Your task to perform on an android device: open app "Google Play services" Image 0: 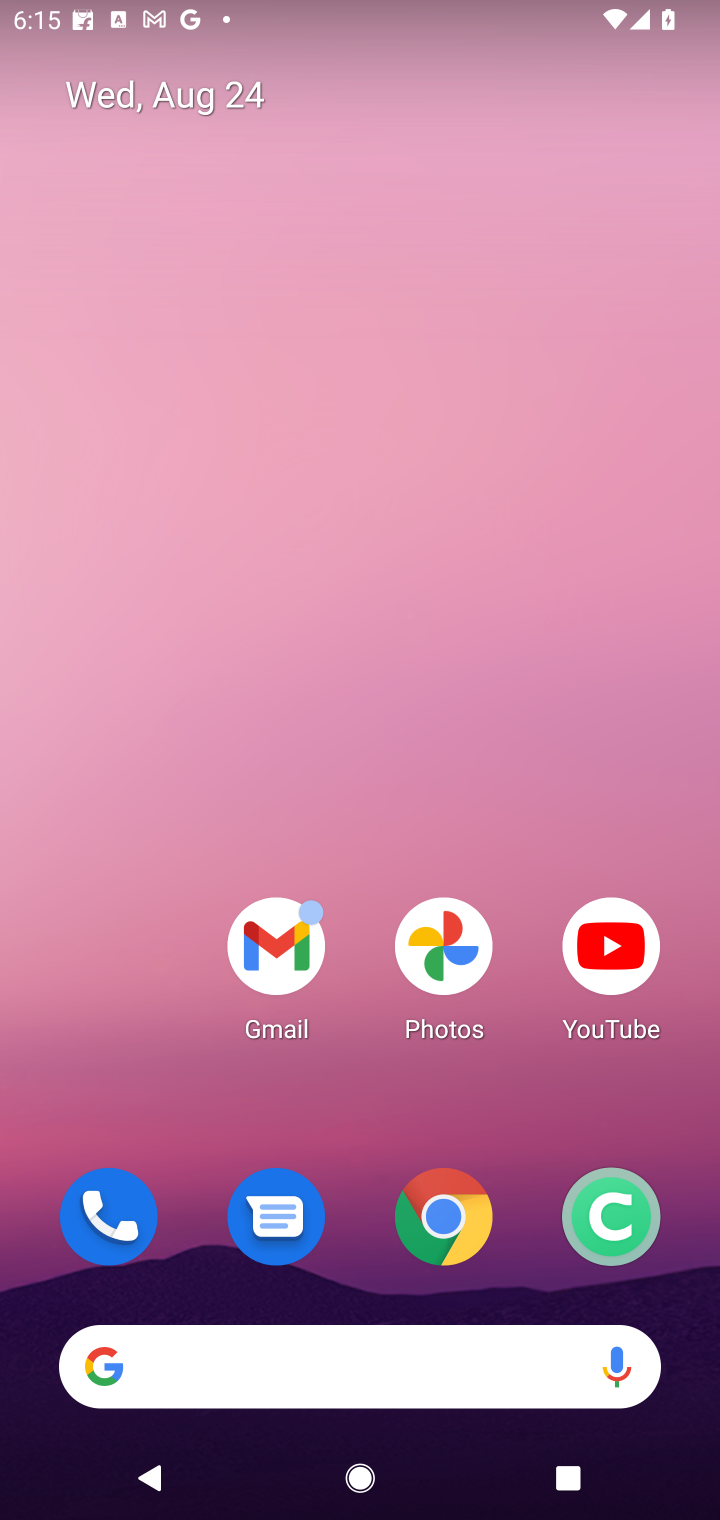
Step 0: drag from (380, 885) to (409, 148)
Your task to perform on an android device: open app "Google Play services" Image 1: 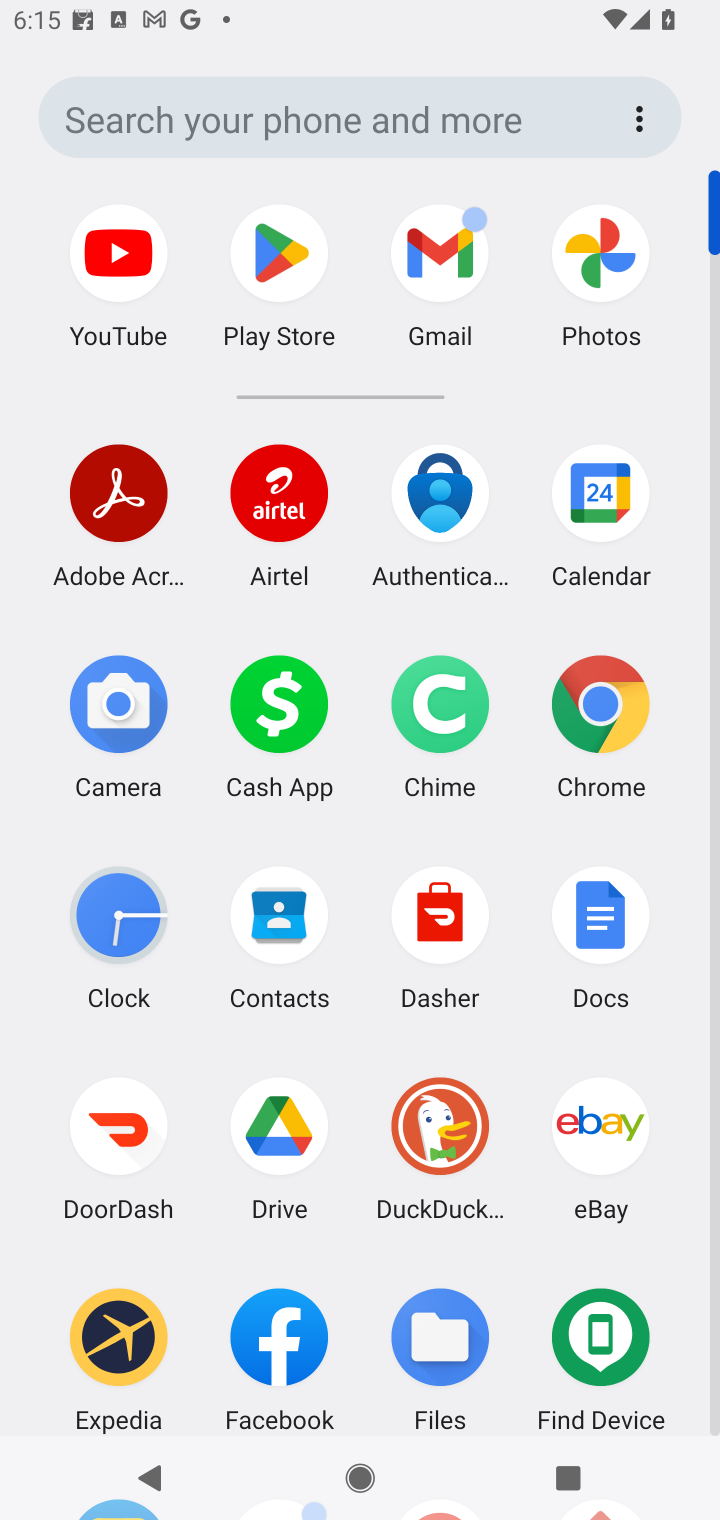
Step 1: click (285, 266)
Your task to perform on an android device: open app "Google Play services" Image 2: 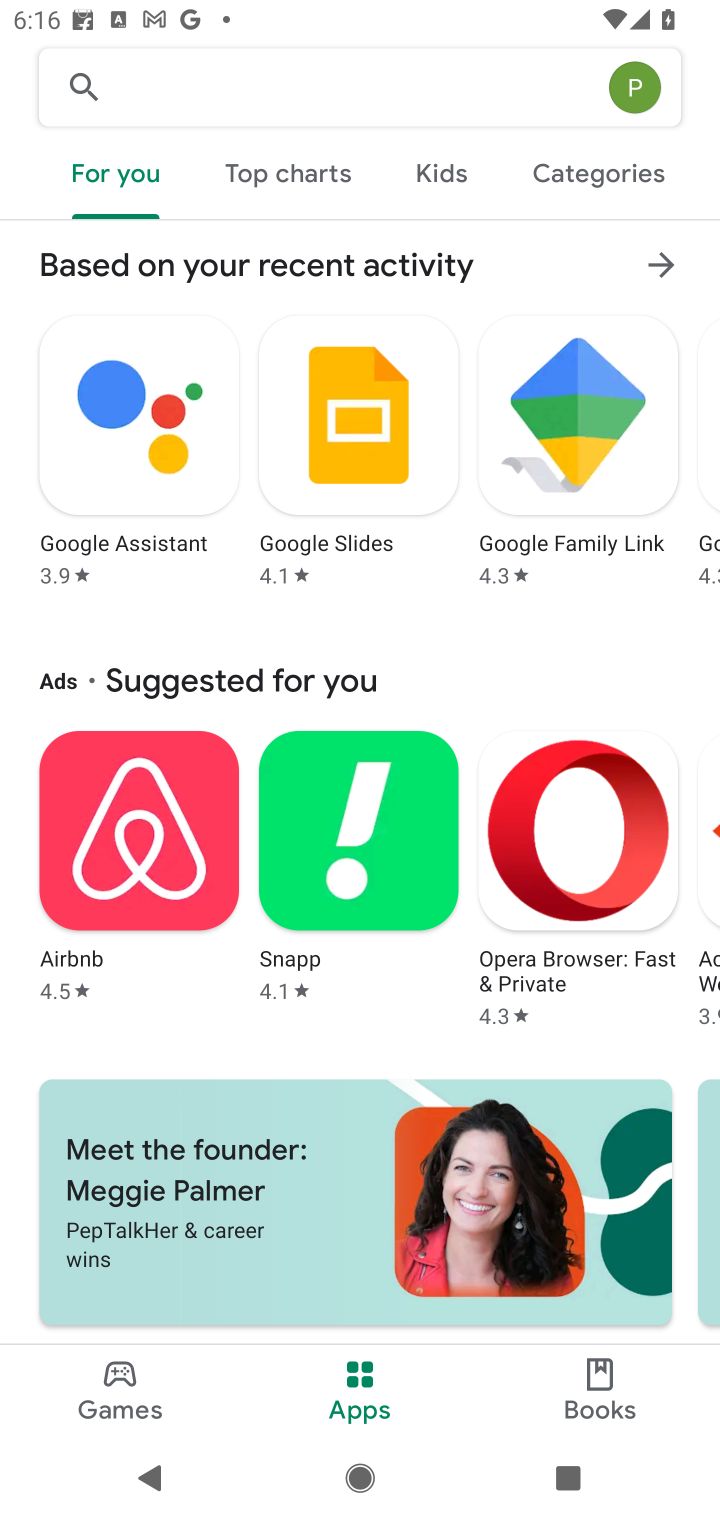
Step 2: click (87, 81)
Your task to perform on an android device: open app "Google Play services" Image 3: 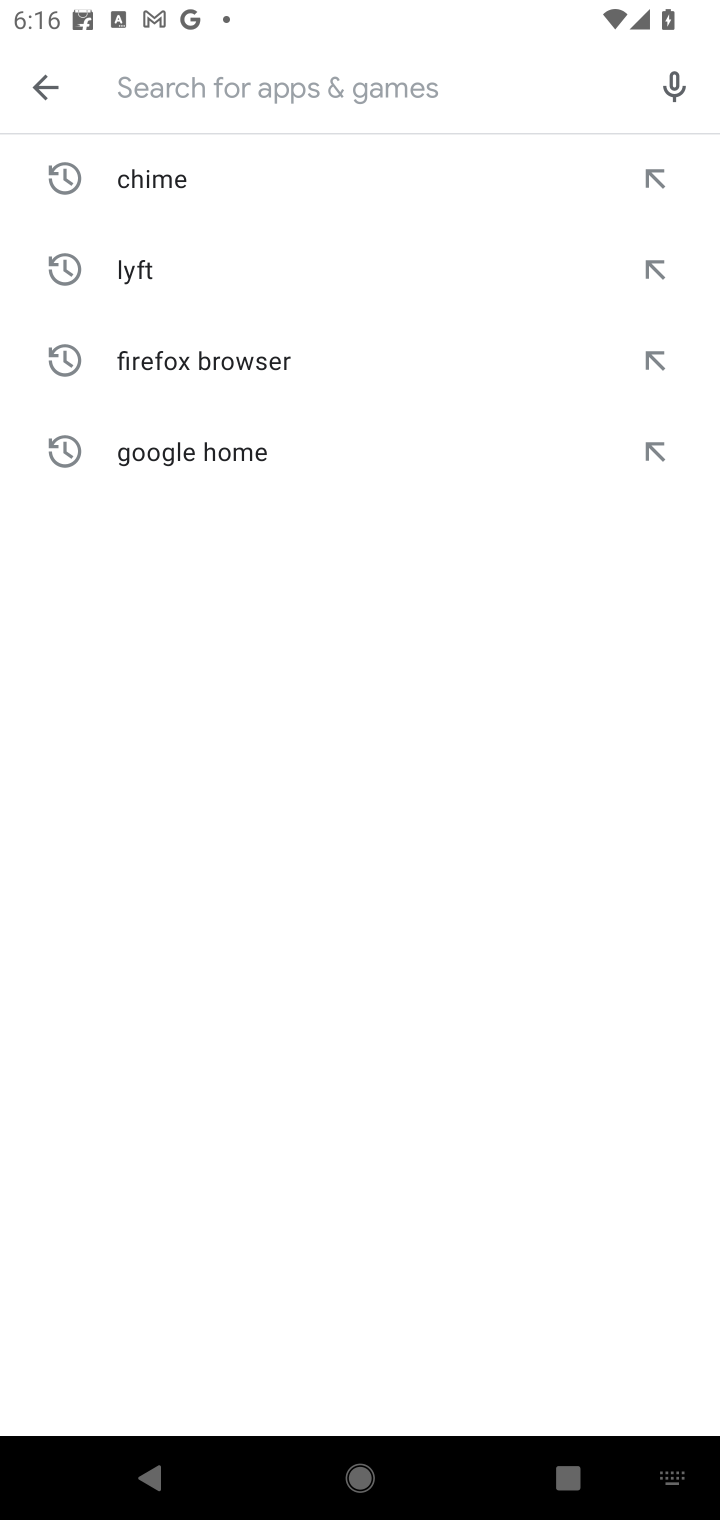
Step 3: type "Google Play services"
Your task to perform on an android device: open app "Google Play services" Image 4: 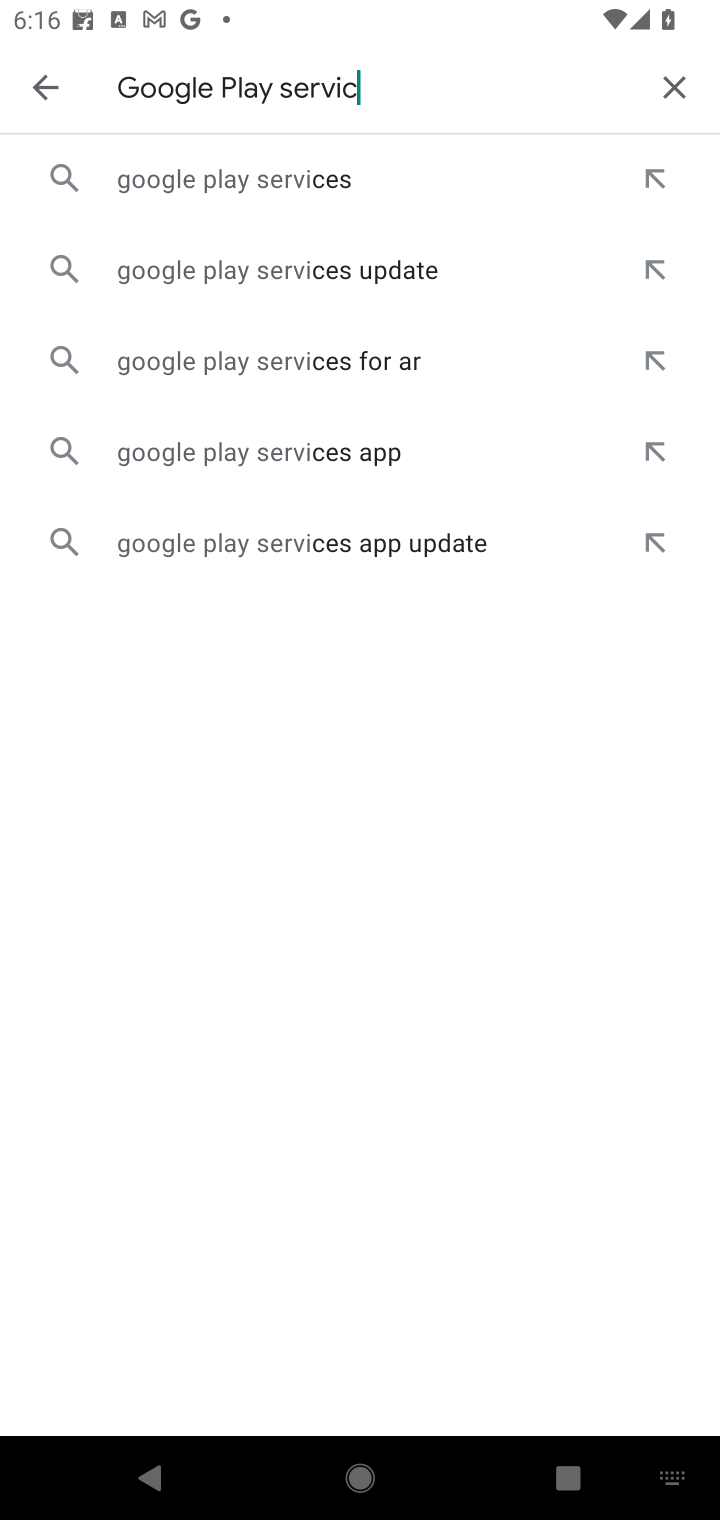
Step 4: type ""
Your task to perform on an android device: open app "Google Play services" Image 5: 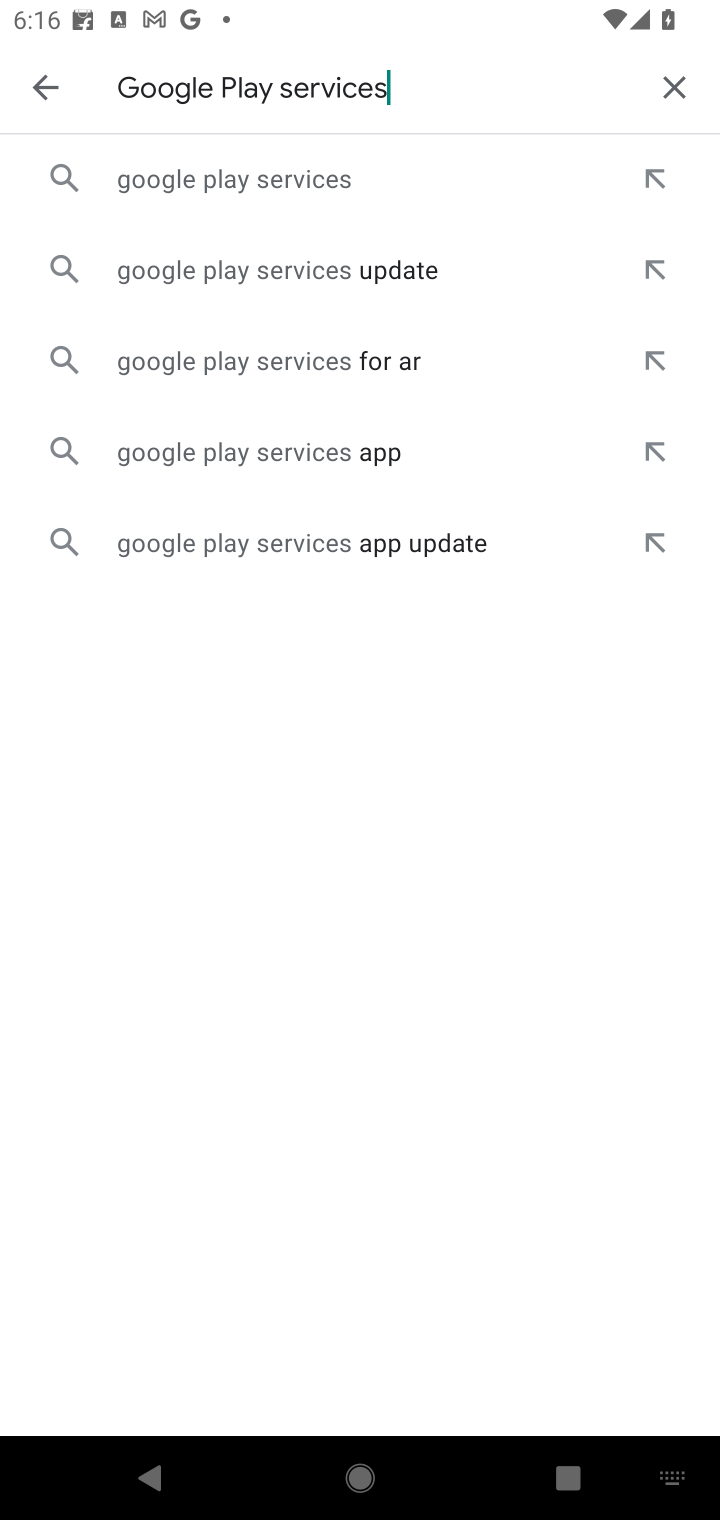
Step 5: click (225, 190)
Your task to perform on an android device: open app "Google Play services" Image 6: 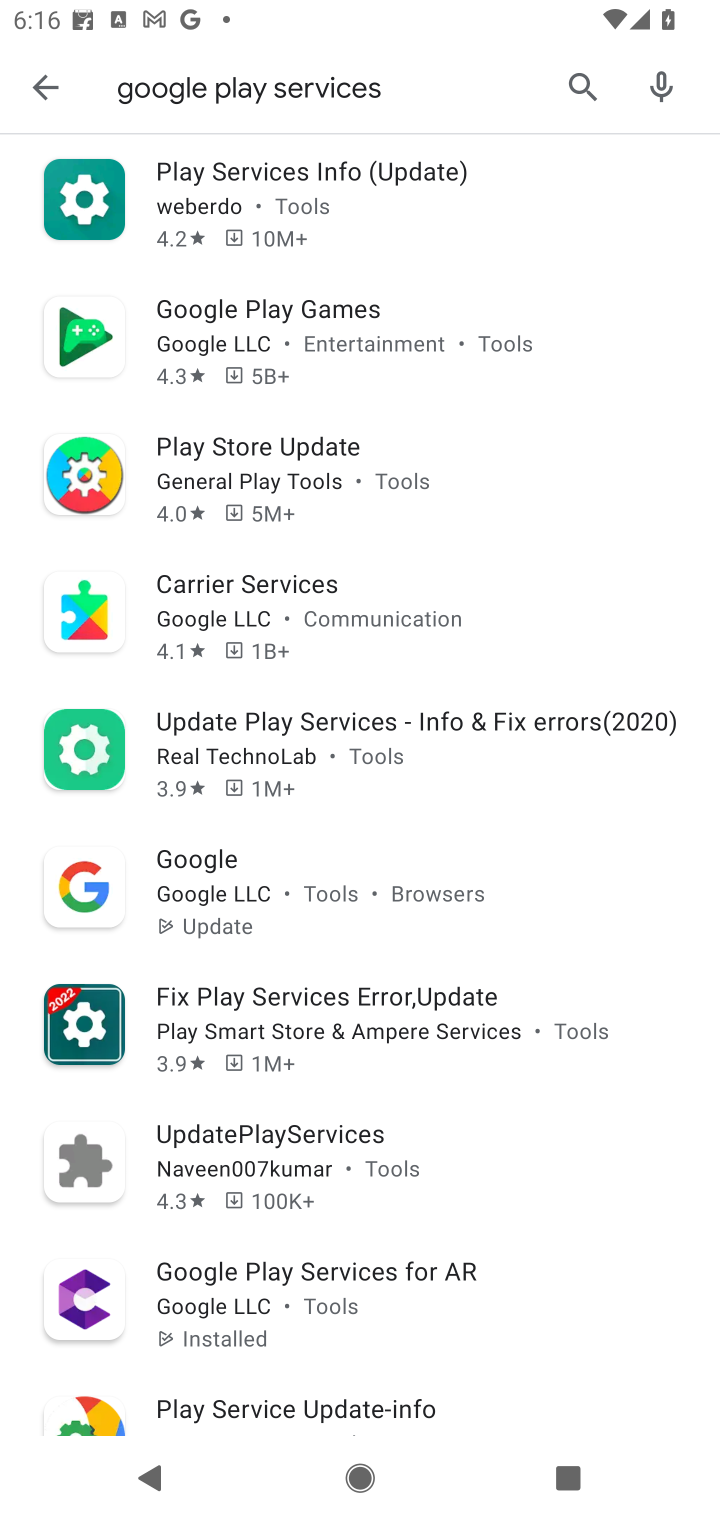
Step 6: click (301, 206)
Your task to perform on an android device: open app "Google Play services" Image 7: 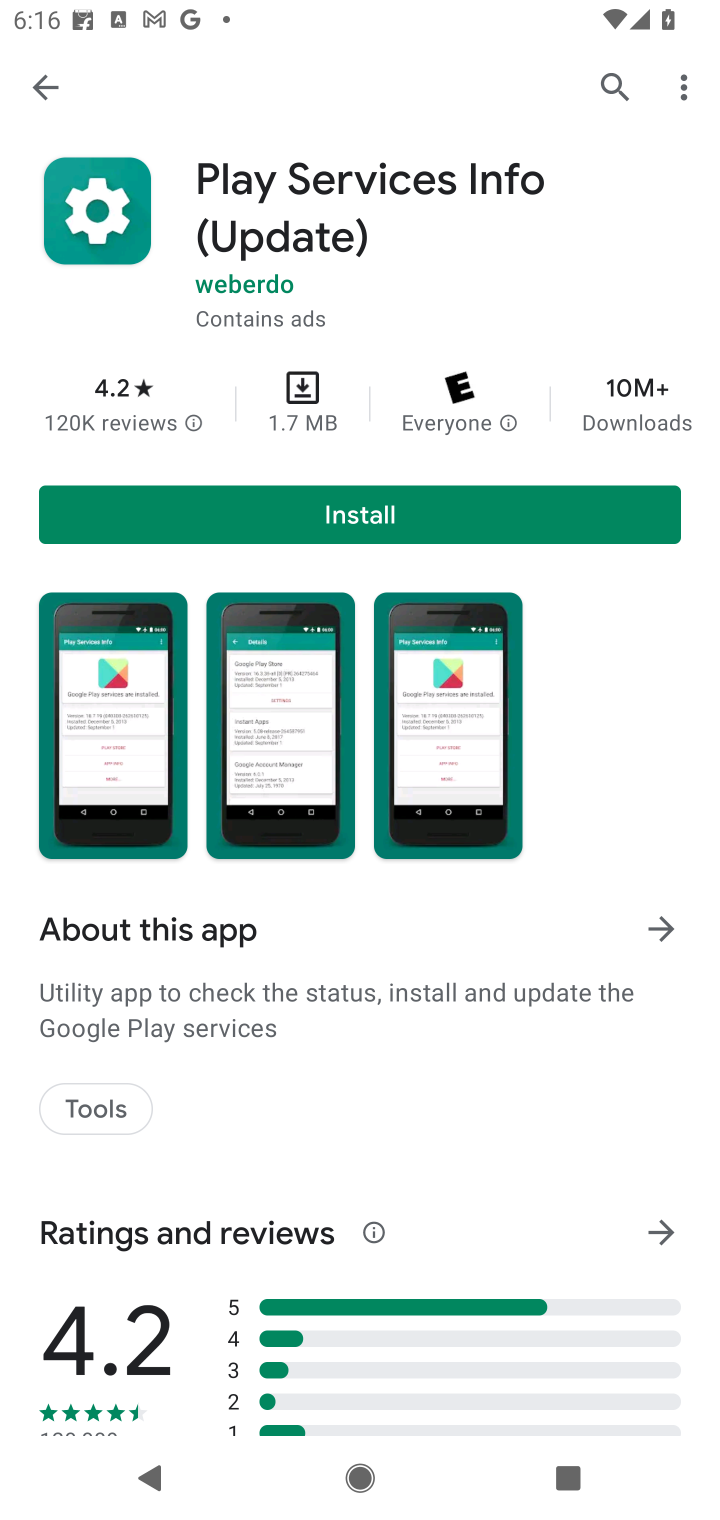
Step 7: task complete